Your task to perform on an android device: Search for usb-c to usb-b on target, select the first entry, add it to the cart, then select checkout. Image 0: 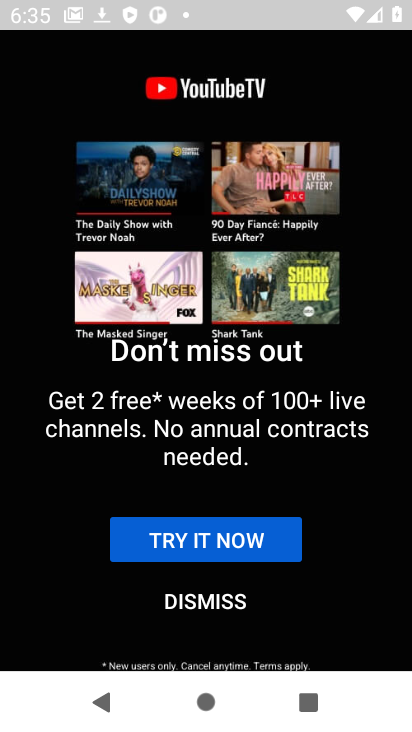
Step 0: press home button
Your task to perform on an android device: Search for usb-c to usb-b on target, select the first entry, add it to the cart, then select checkout. Image 1: 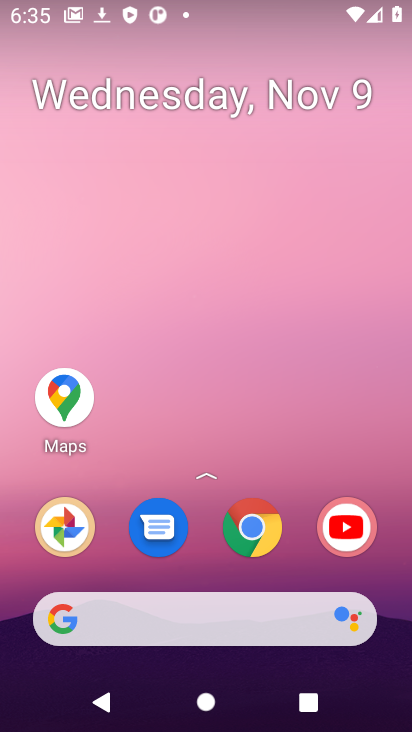
Step 1: click (257, 528)
Your task to perform on an android device: Search for usb-c to usb-b on target, select the first entry, add it to the cart, then select checkout. Image 2: 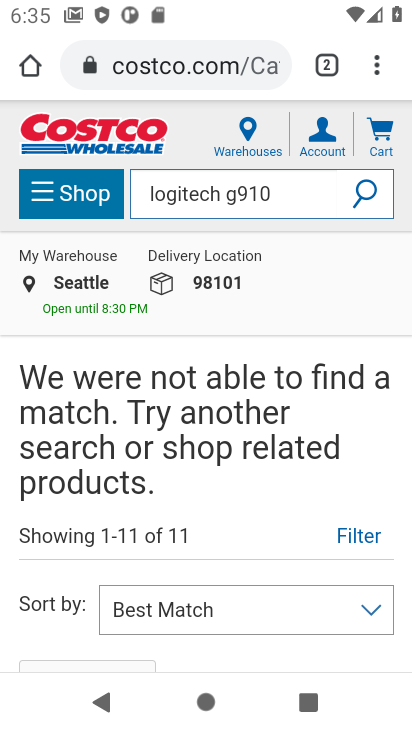
Step 2: click (193, 65)
Your task to perform on an android device: Search for usb-c to usb-b on target, select the first entry, add it to the cart, then select checkout. Image 3: 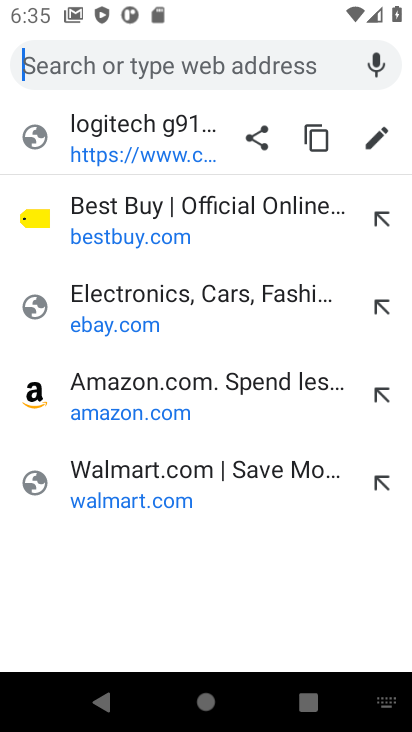
Step 3: type "target.com"
Your task to perform on an android device: Search for usb-c to usb-b on target, select the first entry, add it to the cart, then select checkout. Image 4: 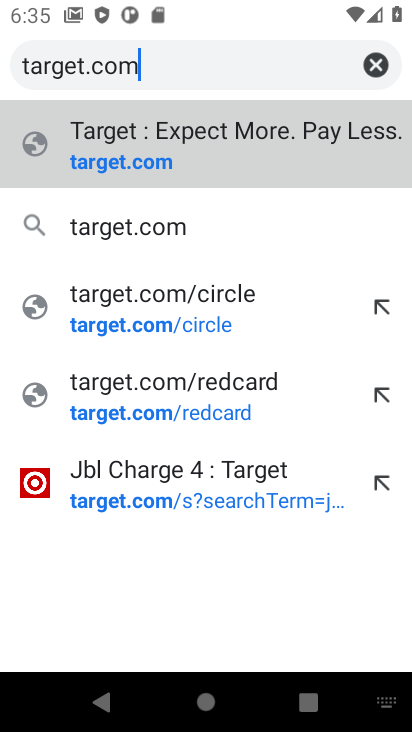
Step 4: click (90, 159)
Your task to perform on an android device: Search for usb-c to usb-b on target, select the first entry, add it to the cart, then select checkout. Image 5: 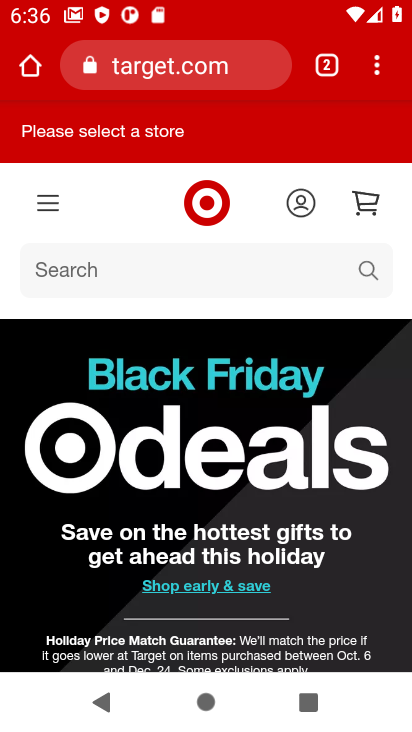
Step 5: click (369, 279)
Your task to perform on an android device: Search for usb-c to usb-b on target, select the first entry, add it to the cart, then select checkout. Image 6: 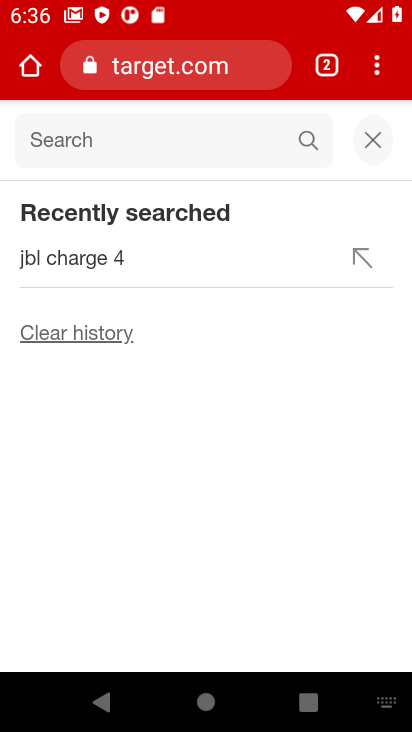
Step 6: type "usb-c to usb-b"
Your task to perform on an android device: Search for usb-c to usb-b on target, select the first entry, add it to the cart, then select checkout. Image 7: 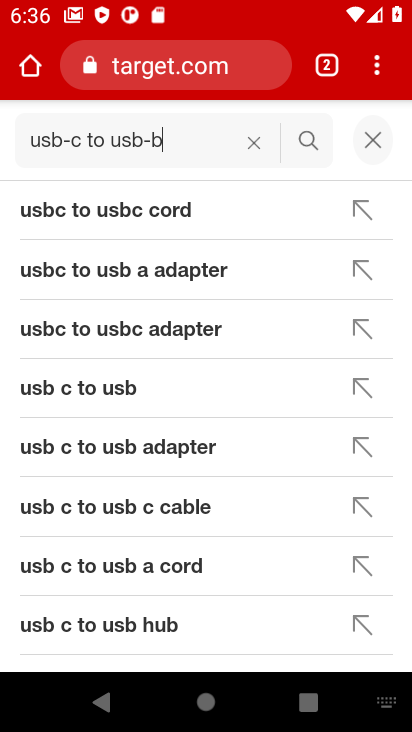
Step 7: click (87, 396)
Your task to perform on an android device: Search for usb-c to usb-b on target, select the first entry, add it to the cart, then select checkout. Image 8: 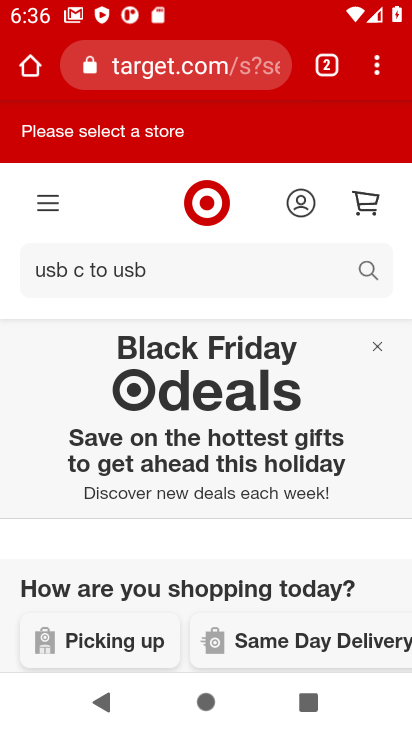
Step 8: drag from (145, 482) to (147, 198)
Your task to perform on an android device: Search for usb-c to usb-b on target, select the first entry, add it to the cart, then select checkout. Image 9: 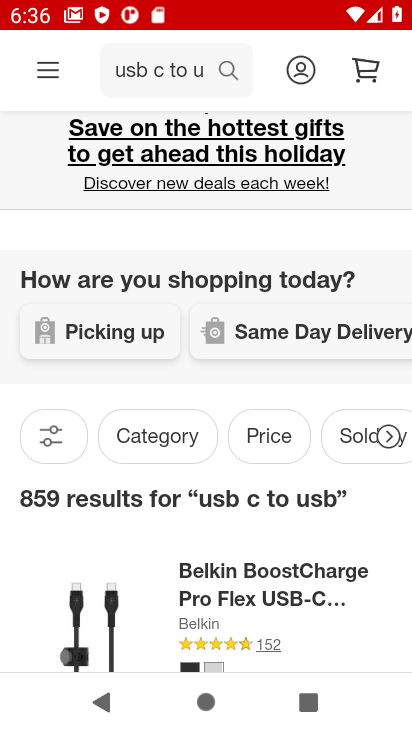
Step 9: drag from (134, 545) to (131, 343)
Your task to perform on an android device: Search for usb-c to usb-b on target, select the first entry, add it to the cart, then select checkout. Image 10: 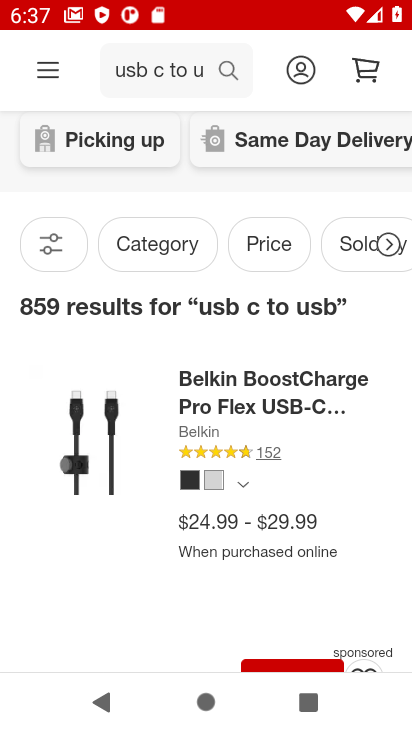
Step 10: click (126, 438)
Your task to perform on an android device: Search for usb-c to usb-b on target, select the first entry, add it to the cart, then select checkout. Image 11: 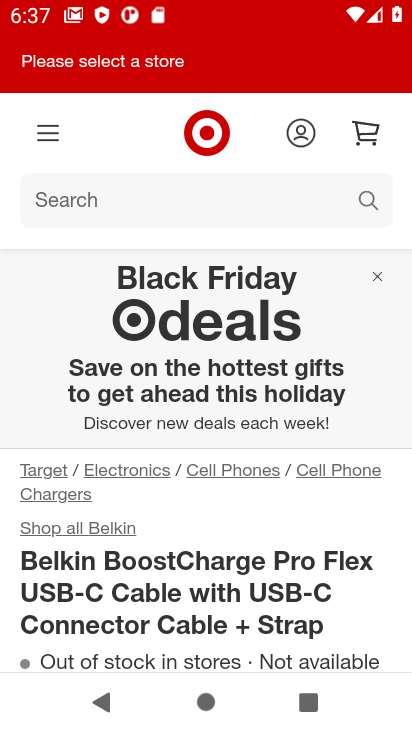
Step 11: task complete